Your task to perform on an android device: turn off location history Image 0: 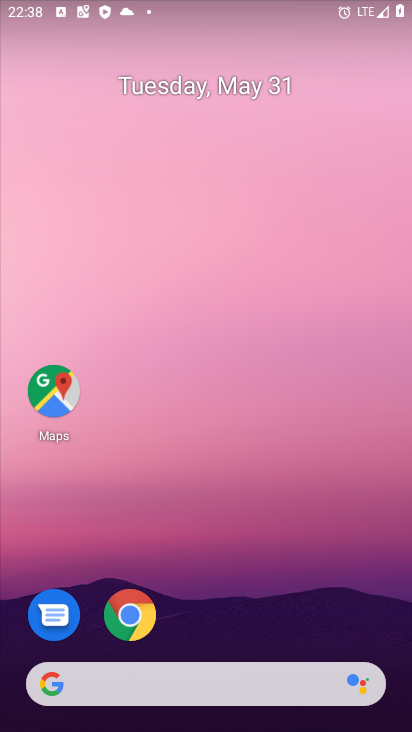
Step 0: click (53, 388)
Your task to perform on an android device: turn off location history Image 1: 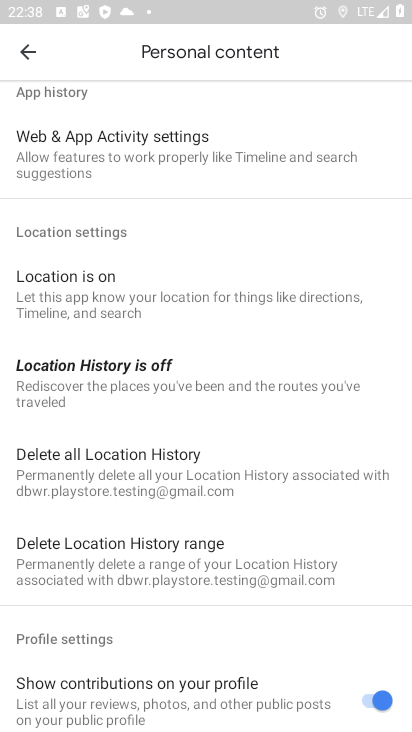
Step 1: task complete